Your task to perform on an android device: delete a single message in the gmail app Image 0: 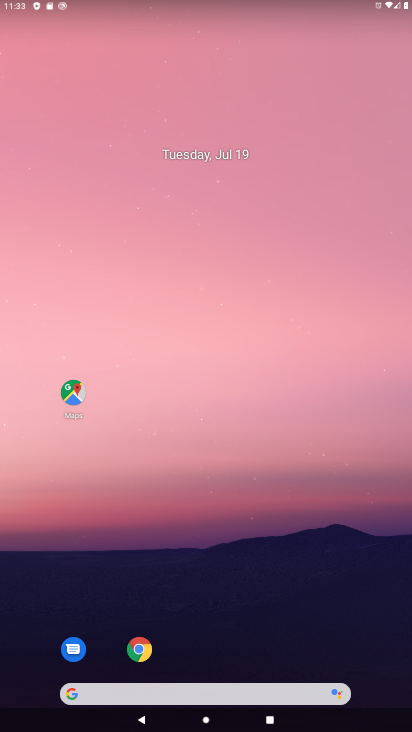
Step 0: drag from (138, 644) to (257, 201)
Your task to perform on an android device: delete a single message in the gmail app Image 1: 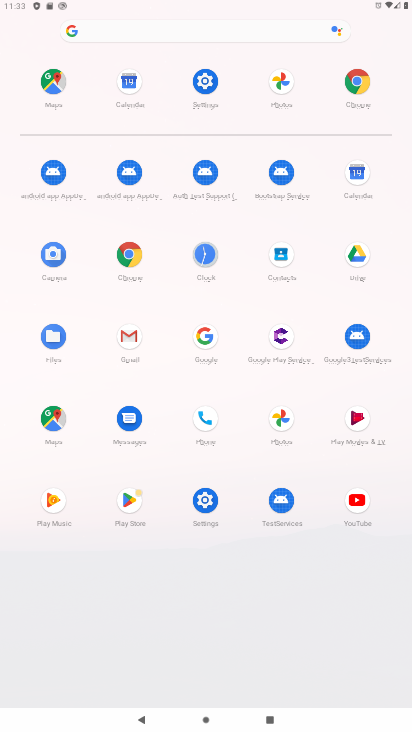
Step 1: click (137, 337)
Your task to perform on an android device: delete a single message in the gmail app Image 2: 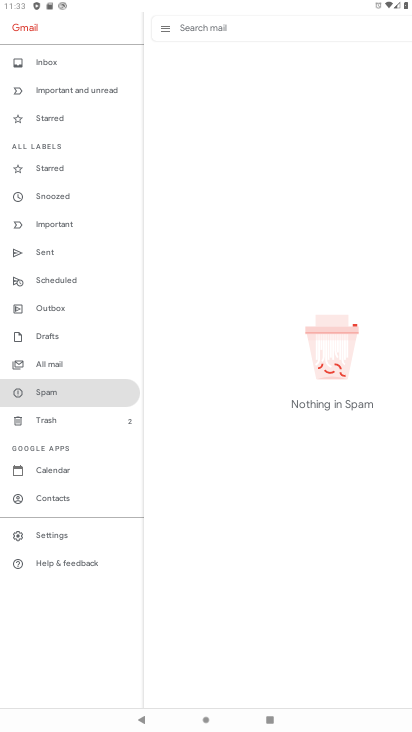
Step 2: click (53, 68)
Your task to perform on an android device: delete a single message in the gmail app Image 3: 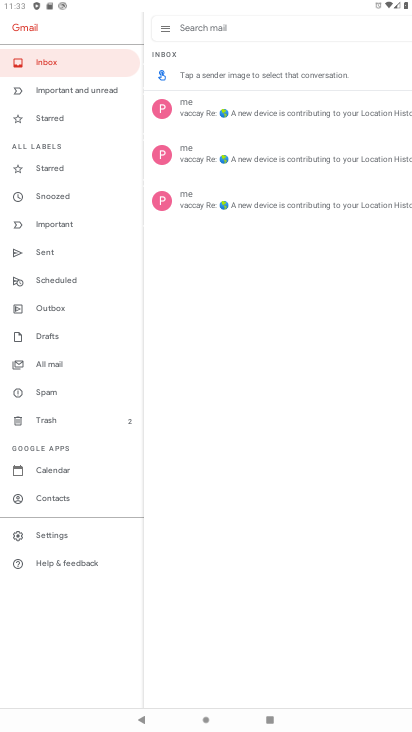
Step 3: click (230, 102)
Your task to perform on an android device: delete a single message in the gmail app Image 4: 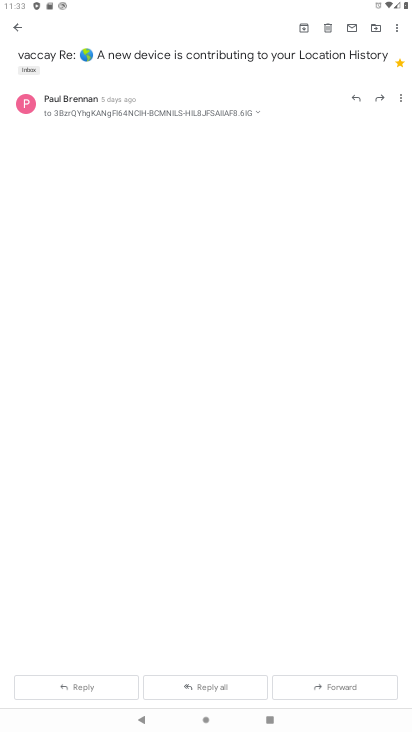
Step 4: click (397, 23)
Your task to perform on an android device: delete a single message in the gmail app Image 5: 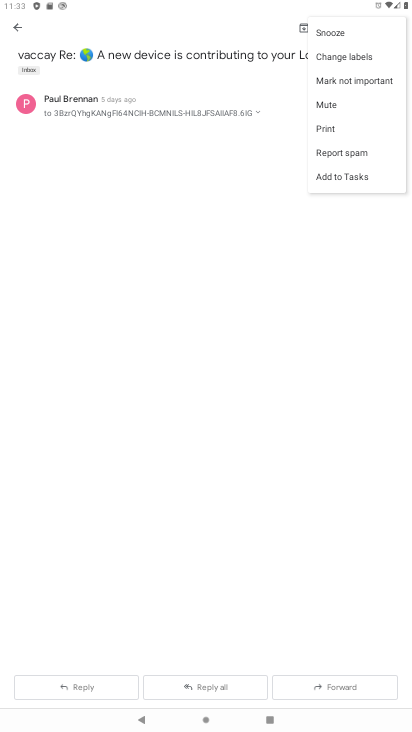
Step 5: click (280, 201)
Your task to perform on an android device: delete a single message in the gmail app Image 6: 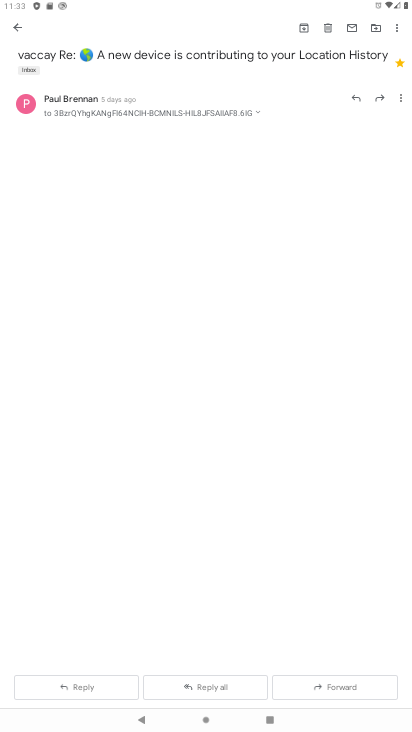
Step 6: click (329, 25)
Your task to perform on an android device: delete a single message in the gmail app Image 7: 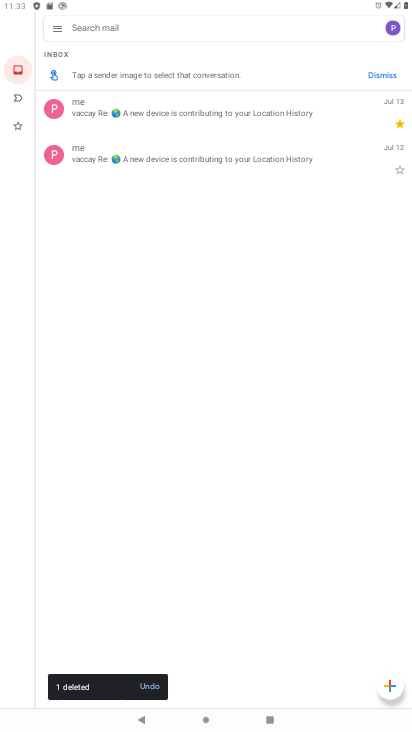
Step 7: task complete